Your task to perform on an android device: open a bookmark in the chrome app Image 0: 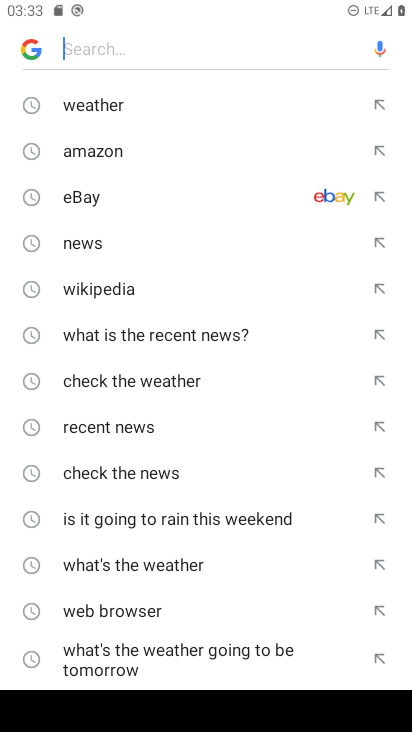
Step 0: press home button
Your task to perform on an android device: open a bookmark in the chrome app Image 1: 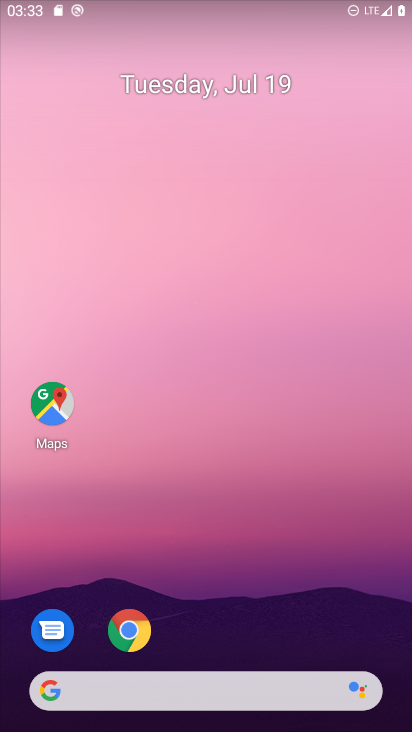
Step 1: click (128, 630)
Your task to perform on an android device: open a bookmark in the chrome app Image 2: 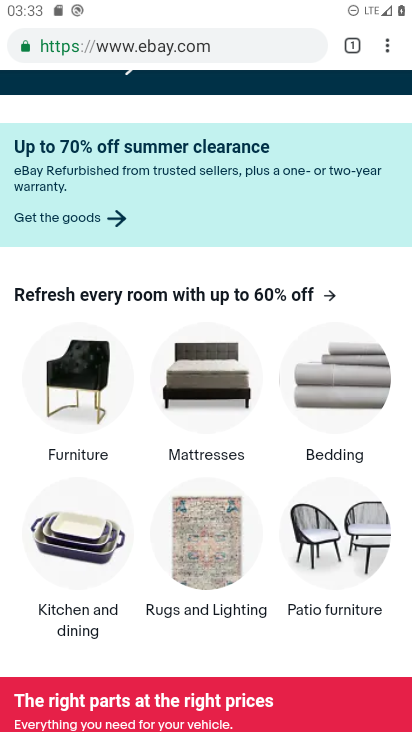
Step 2: click (387, 48)
Your task to perform on an android device: open a bookmark in the chrome app Image 3: 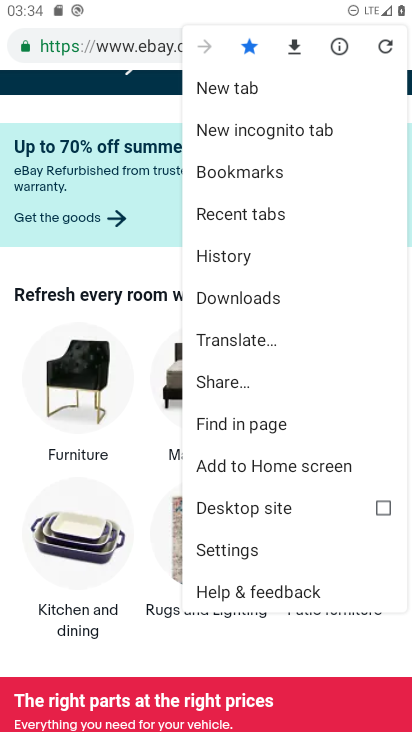
Step 3: click (228, 175)
Your task to perform on an android device: open a bookmark in the chrome app Image 4: 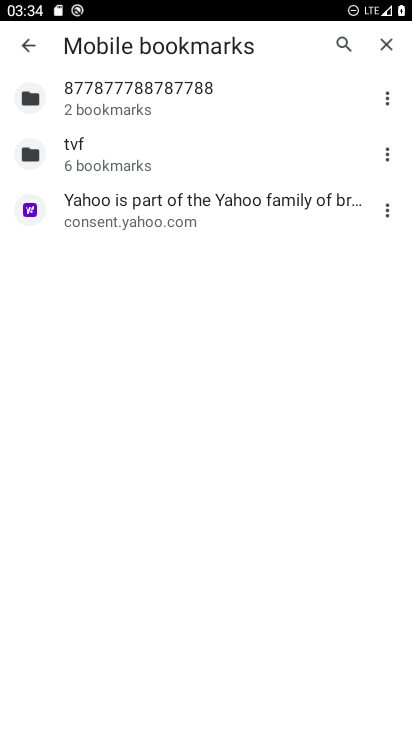
Step 4: task complete